Your task to perform on an android device: refresh tabs in the chrome app Image 0: 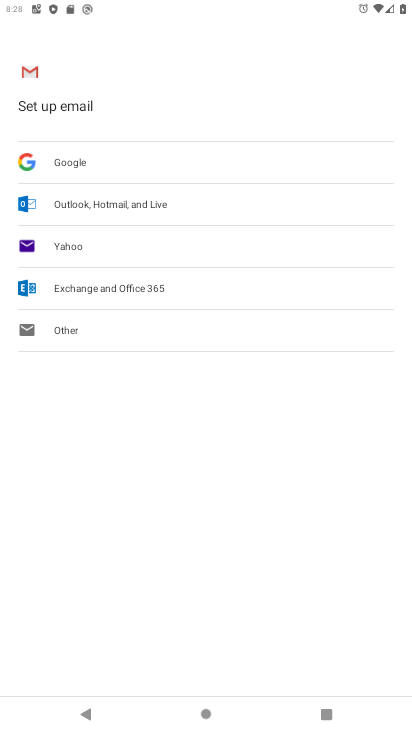
Step 0: press home button
Your task to perform on an android device: refresh tabs in the chrome app Image 1: 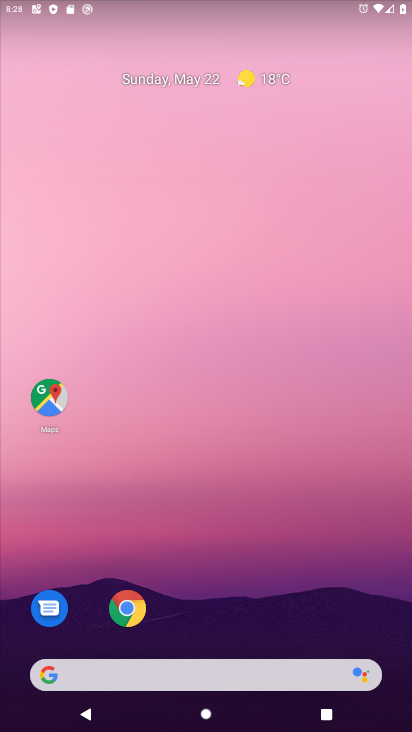
Step 1: click (126, 608)
Your task to perform on an android device: refresh tabs in the chrome app Image 2: 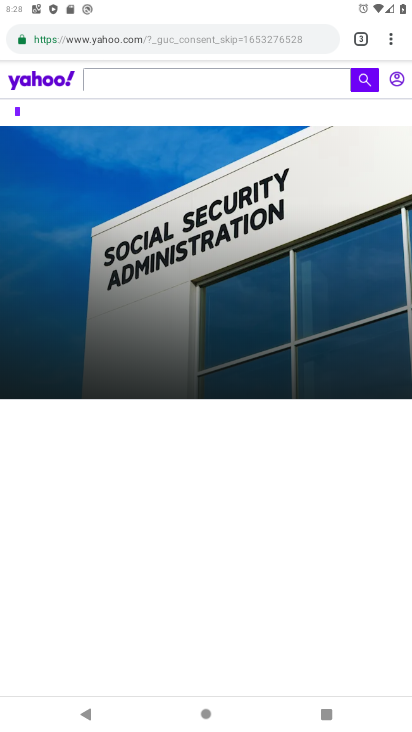
Step 2: click (389, 44)
Your task to perform on an android device: refresh tabs in the chrome app Image 3: 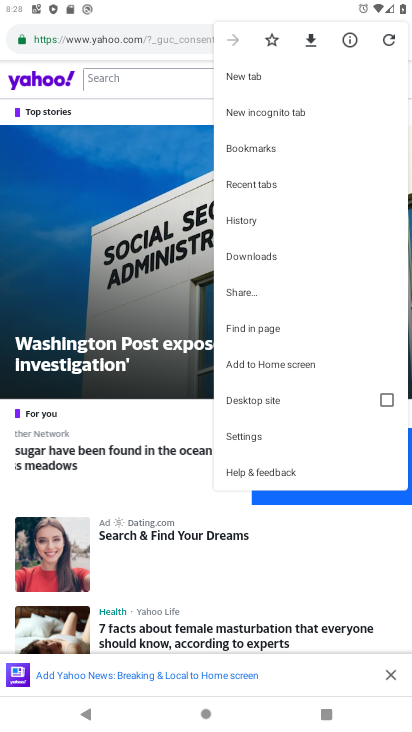
Step 3: click (391, 34)
Your task to perform on an android device: refresh tabs in the chrome app Image 4: 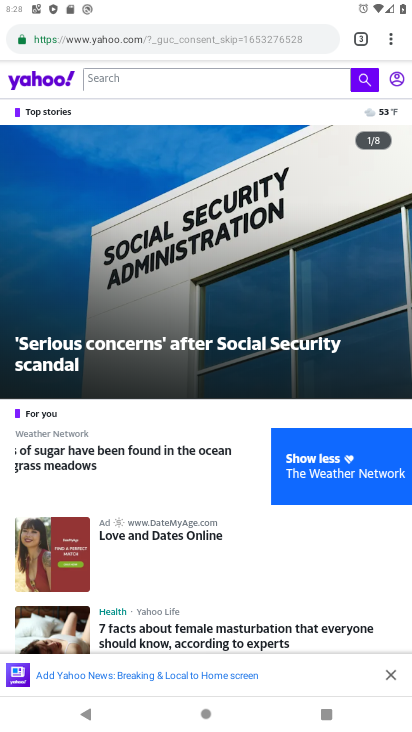
Step 4: task complete